Your task to perform on an android device: Is it going to rain tomorrow? Image 0: 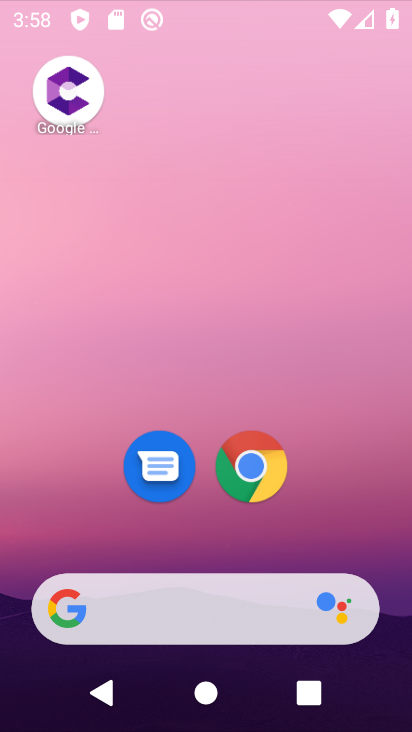
Step 0: drag from (262, 416) to (243, 15)
Your task to perform on an android device: Is it going to rain tomorrow? Image 1: 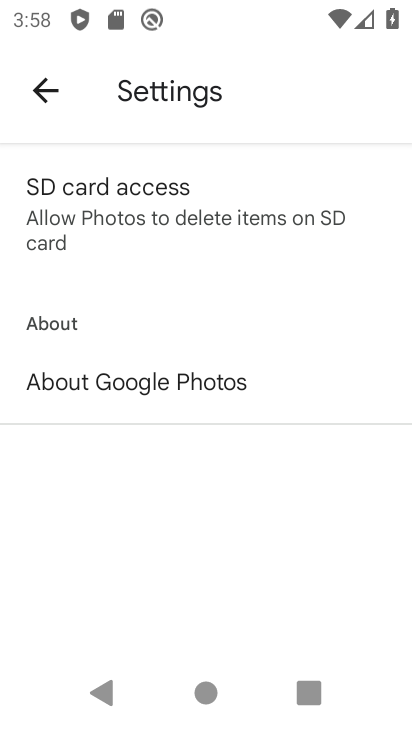
Step 1: press back button
Your task to perform on an android device: Is it going to rain tomorrow? Image 2: 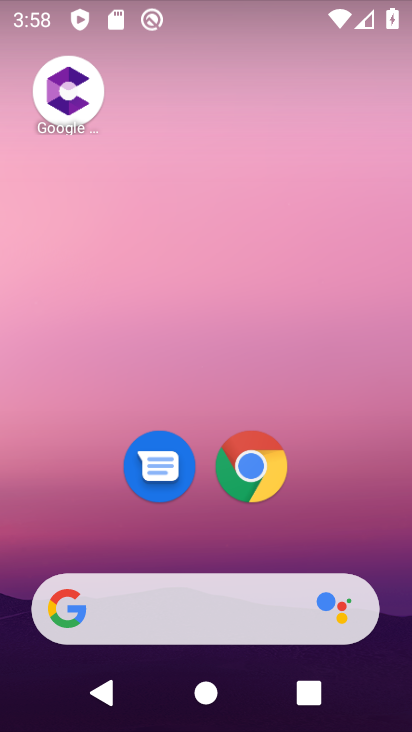
Step 2: drag from (329, 443) to (265, 45)
Your task to perform on an android device: Is it going to rain tomorrow? Image 3: 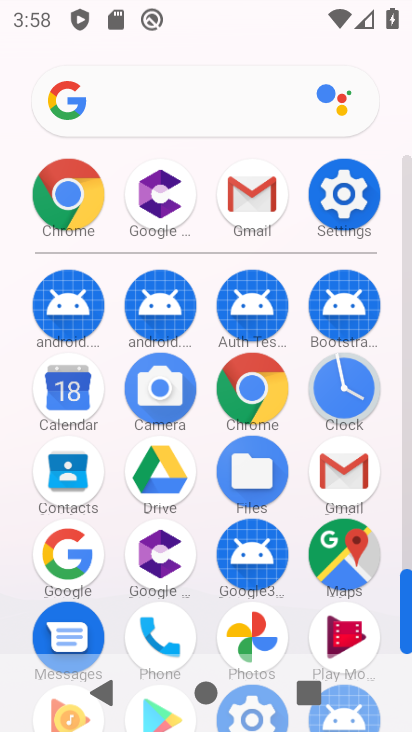
Step 3: click (230, 99)
Your task to perform on an android device: Is it going to rain tomorrow? Image 4: 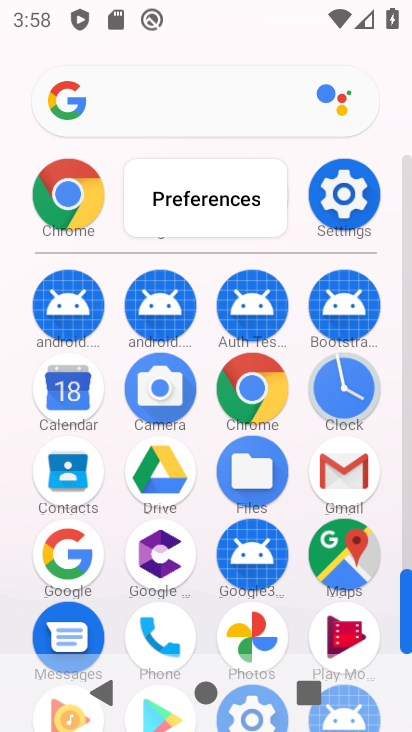
Step 4: click (184, 103)
Your task to perform on an android device: Is it going to rain tomorrow? Image 5: 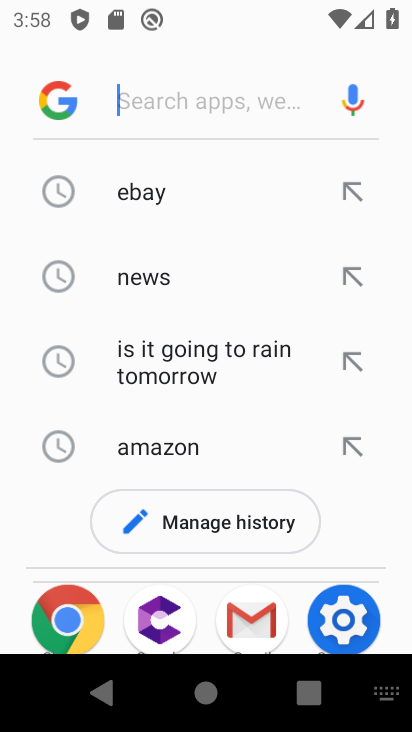
Step 5: click (184, 360)
Your task to perform on an android device: Is it going to rain tomorrow? Image 6: 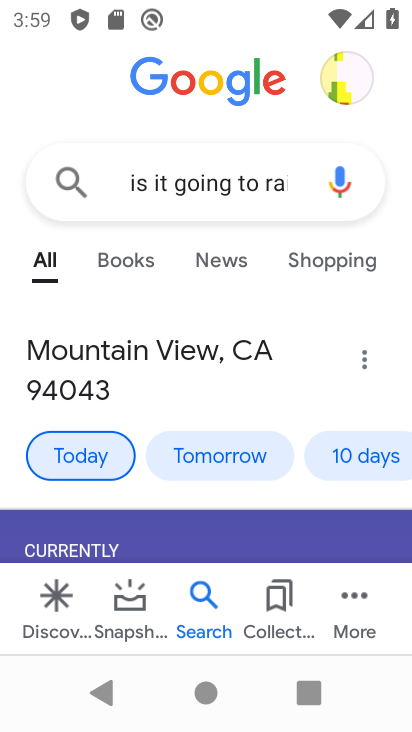
Step 6: drag from (244, 367) to (255, 111)
Your task to perform on an android device: Is it going to rain tomorrow? Image 7: 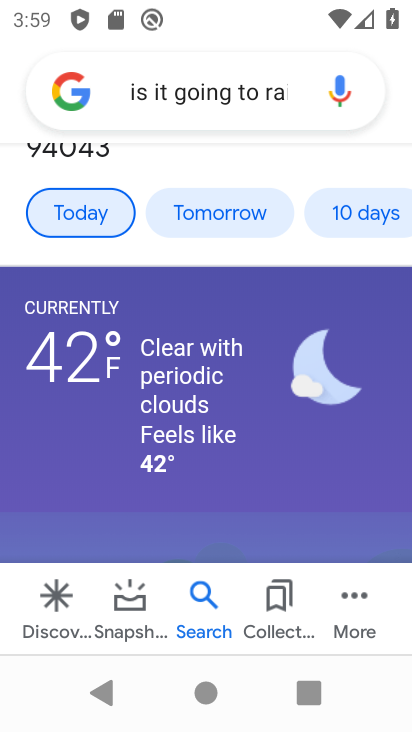
Step 7: click (244, 209)
Your task to perform on an android device: Is it going to rain tomorrow? Image 8: 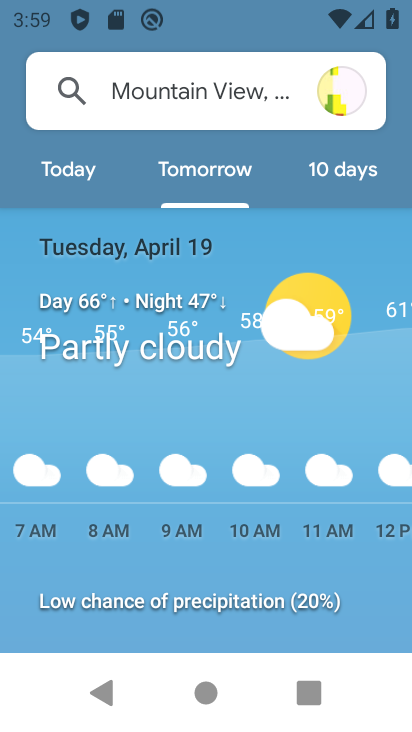
Step 8: task complete